Your task to perform on an android device: Open Maps and search for coffee Image 0: 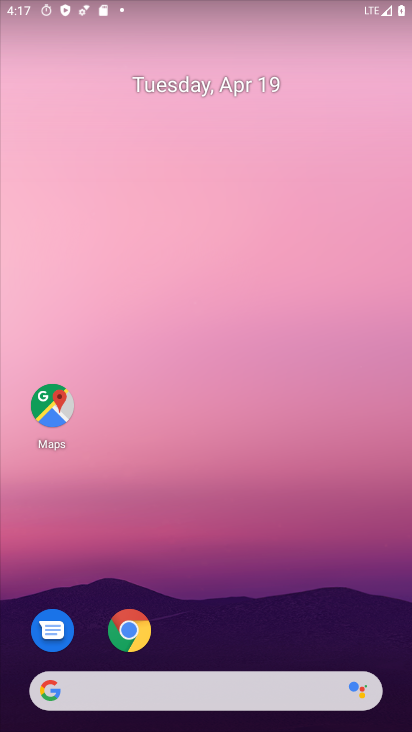
Step 0: click (44, 411)
Your task to perform on an android device: Open Maps and search for coffee Image 1: 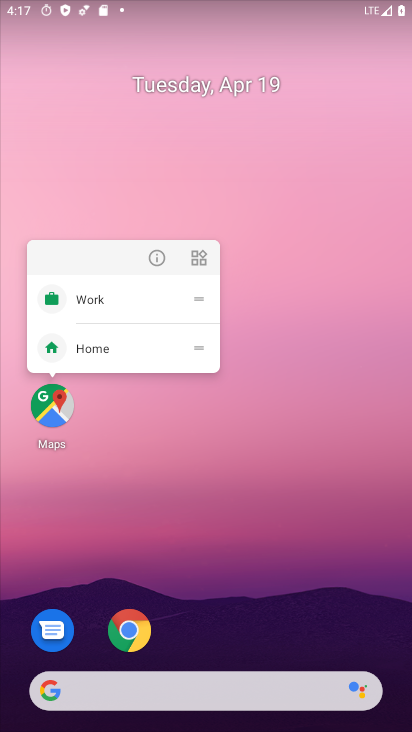
Step 1: click (47, 409)
Your task to perform on an android device: Open Maps and search for coffee Image 2: 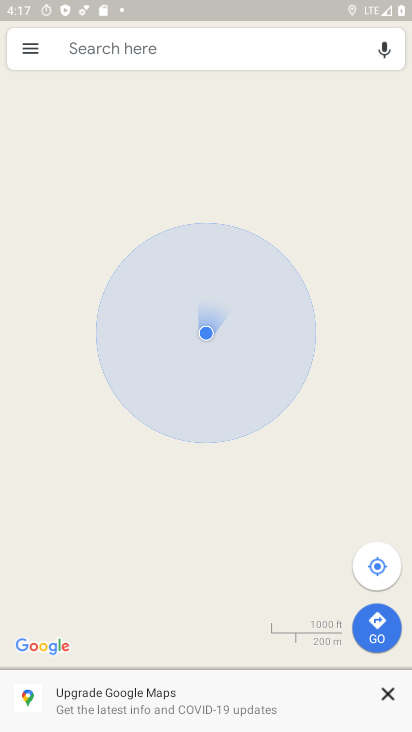
Step 2: click (149, 49)
Your task to perform on an android device: Open Maps and search for coffee Image 3: 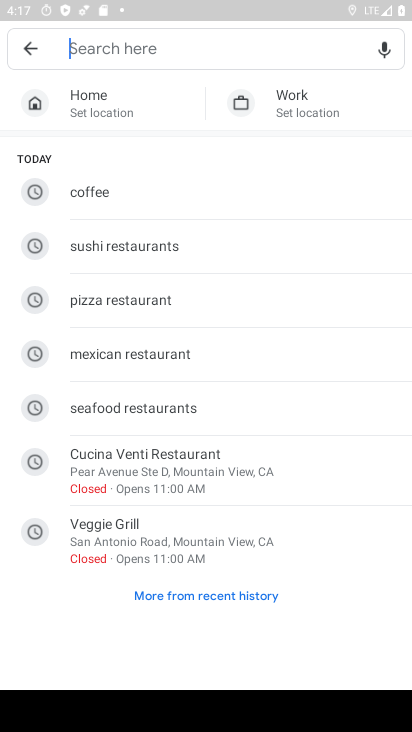
Step 3: type "coffee"
Your task to perform on an android device: Open Maps and search for coffee Image 4: 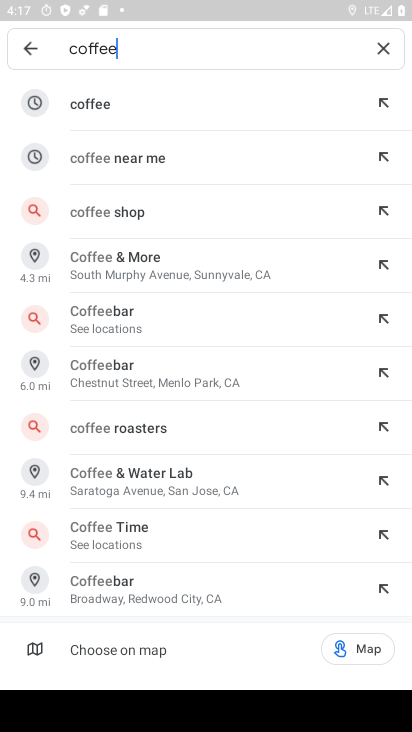
Step 4: click (112, 104)
Your task to perform on an android device: Open Maps and search for coffee Image 5: 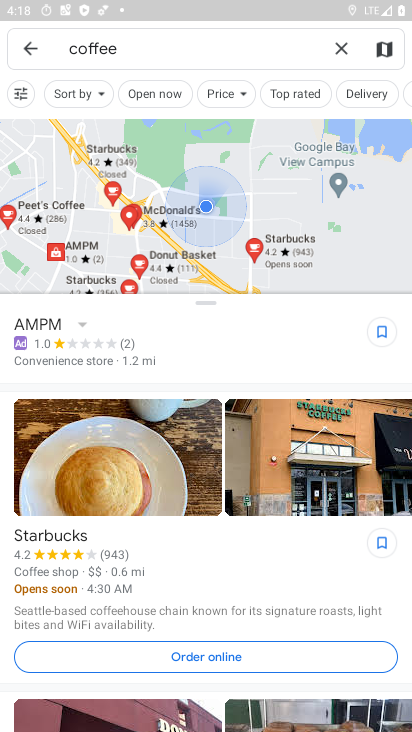
Step 5: task complete